Your task to perform on an android device: Go to Yahoo.com Image 0: 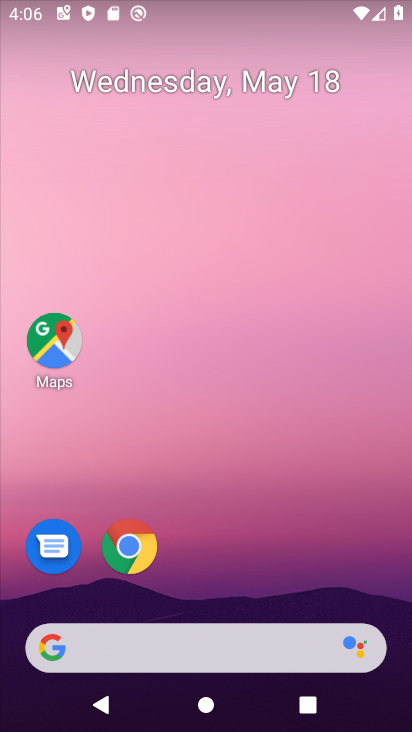
Step 0: click (144, 553)
Your task to perform on an android device: Go to Yahoo.com Image 1: 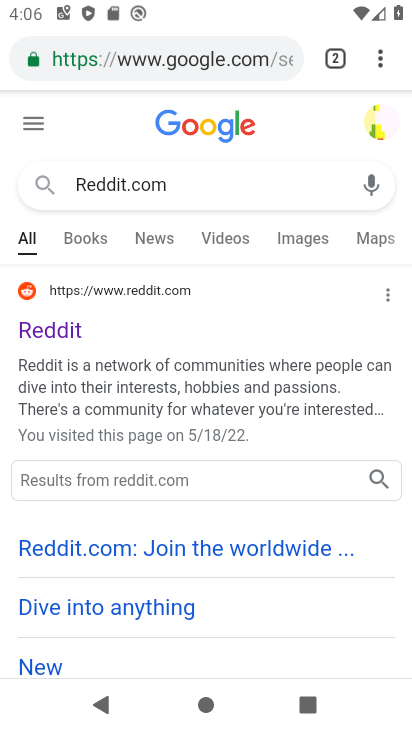
Step 1: click (209, 58)
Your task to perform on an android device: Go to Yahoo.com Image 2: 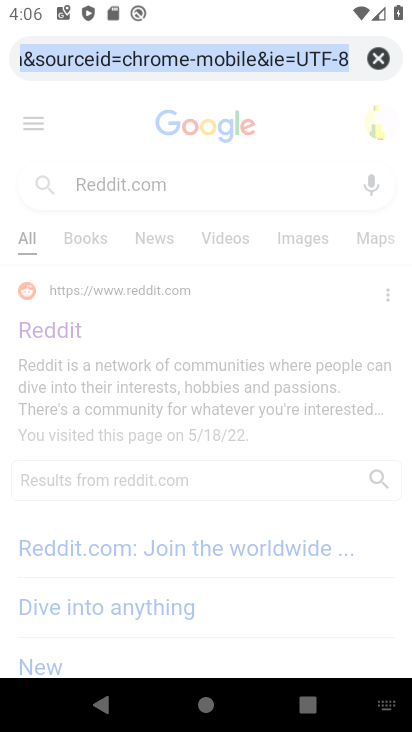
Step 2: type "yahoo.com"
Your task to perform on an android device: Go to Yahoo.com Image 3: 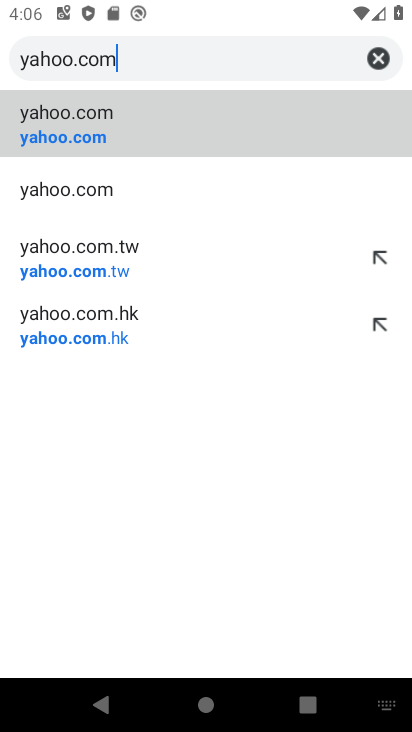
Step 3: click (116, 139)
Your task to perform on an android device: Go to Yahoo.com Image 4: 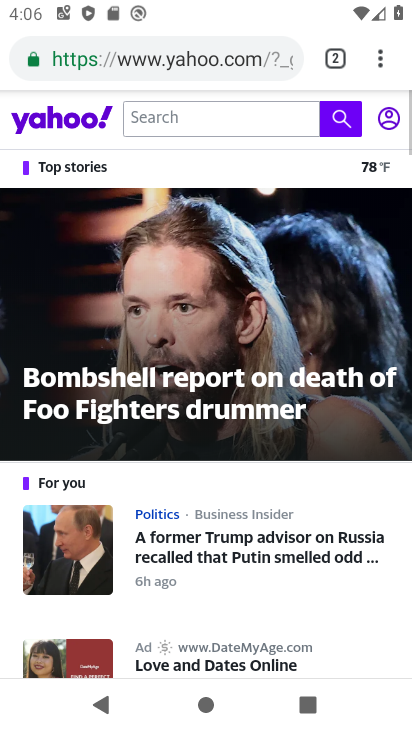
Step 4: task complete